Your task to perform on an android device: Search for seafood restaurants on Google Maps Image 0: 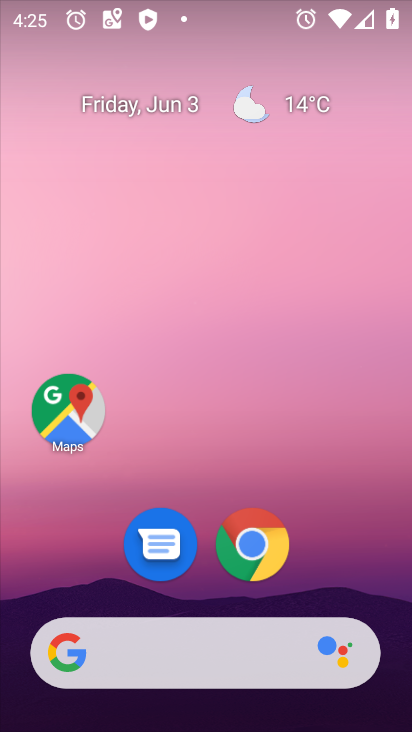
Step 0: click (67, 410)
Your task to perform on an android device: Search for seafood restaurants on Google Maps Image 1: 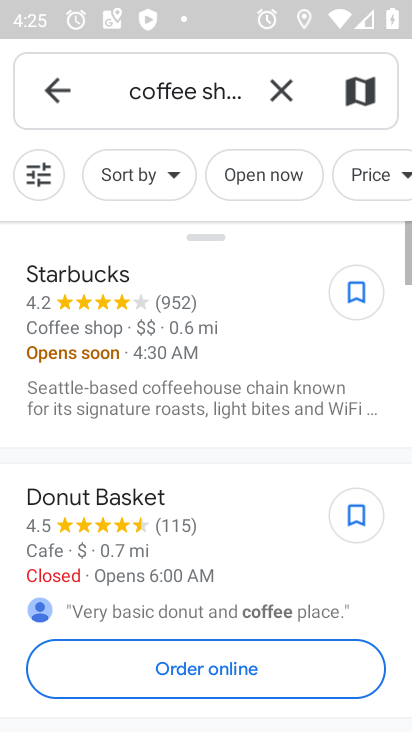
Step 1: click (277, 89)
Your task to perform on an android device: Search for seafood restaurants on Google Maps Image 2: 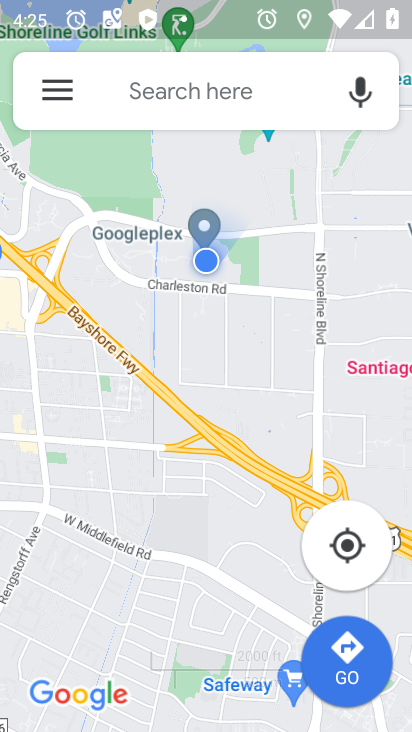
Step 2: click (169, 91)
Your task to perform on an android device: Search for seafood restaurants on Google Maps Image 3: 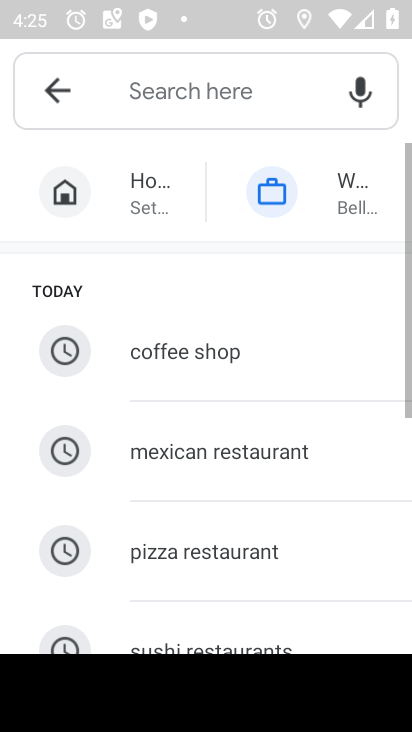
Step 3: type "seafood restaurants"
Your task to perform on an android device: Search for seafood restaurants on Google Maps Image 4: 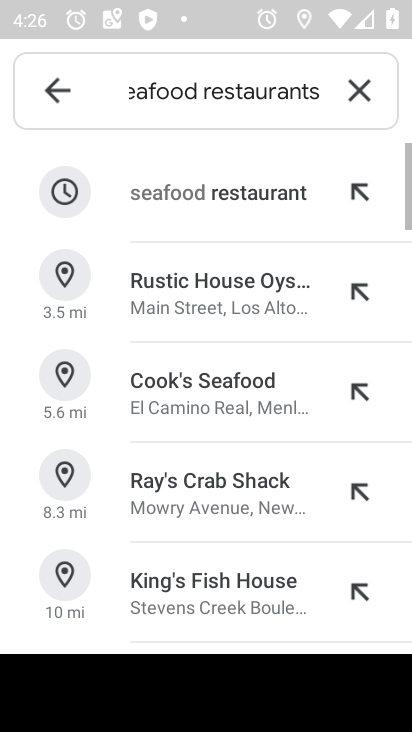
Step 4: click (187, 204)
Your task to perform on an android device: Search for seafood restaurants on Google Maps Image 5: 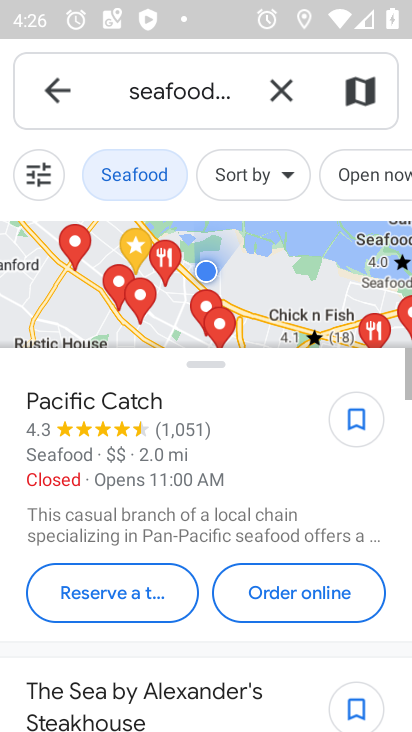
Step 5: task complete